Your task to perform on an android device: delete the emails in spam in the gmail app Image 0: 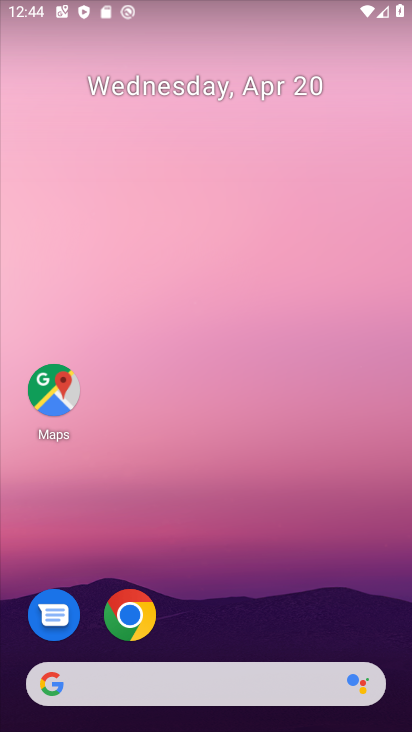
Step 0: click (411, 115)
Your task to perform on an android device: delete the emails in spam in the gmail app Image 1: 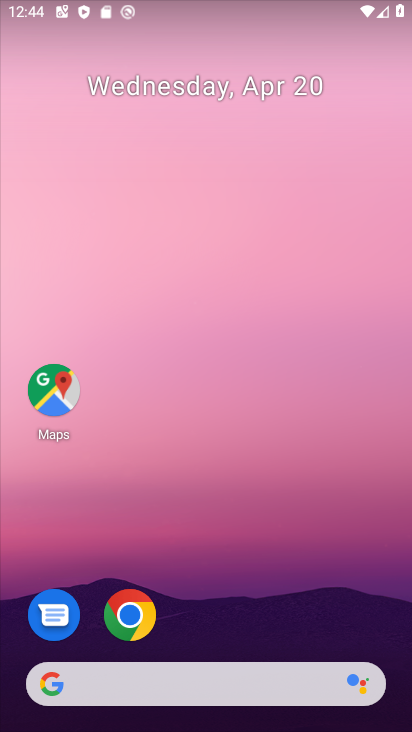
Step 1: drag from (363, 460) to (336, 58)
Your task to perform on an android device: delete the emails in spam in the gmail app Image 2: 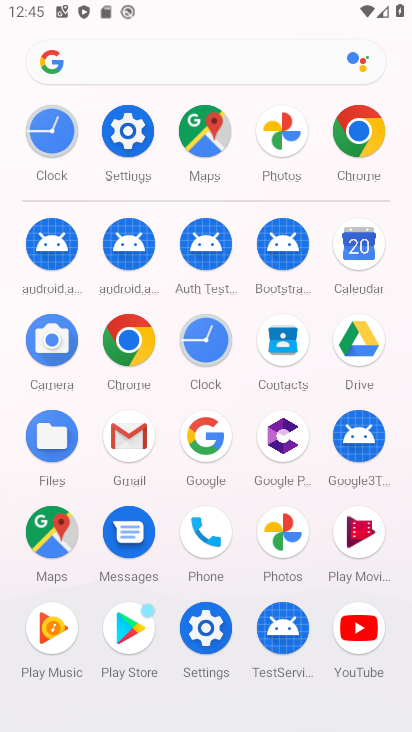
Step 2: click (138, 442)
Your task to perform on an android device: delete the emails in spam in the gmail app Image 3: 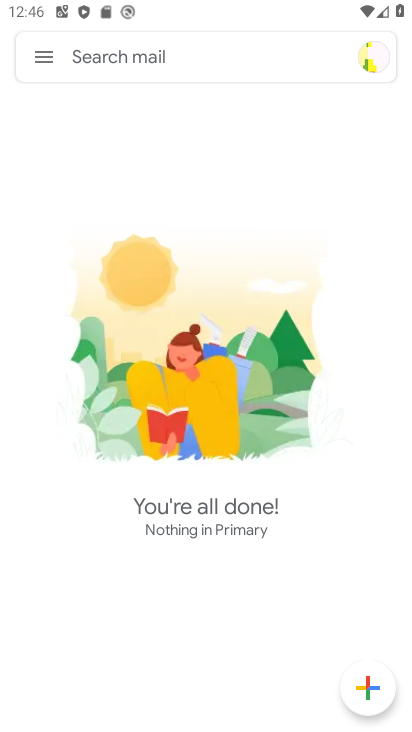
Step 3: click (33, 50)
Your task to perform on an android device: delete the emails in spam in the gmail app Image 4: 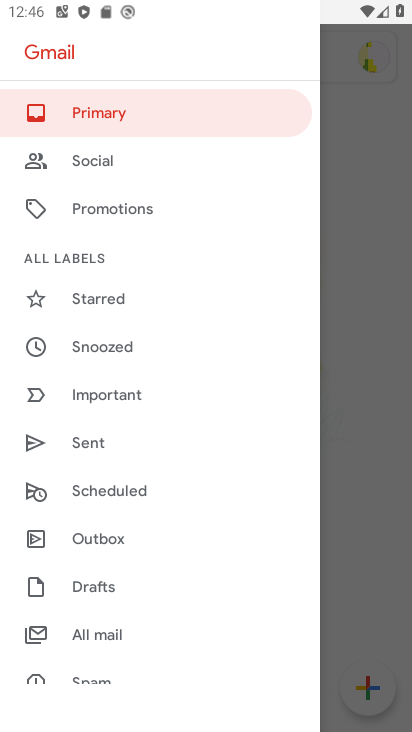
Step 4: click (115, 112)
Your task to perform on an android device: delete the emails in spam in the gmail app Image 5: 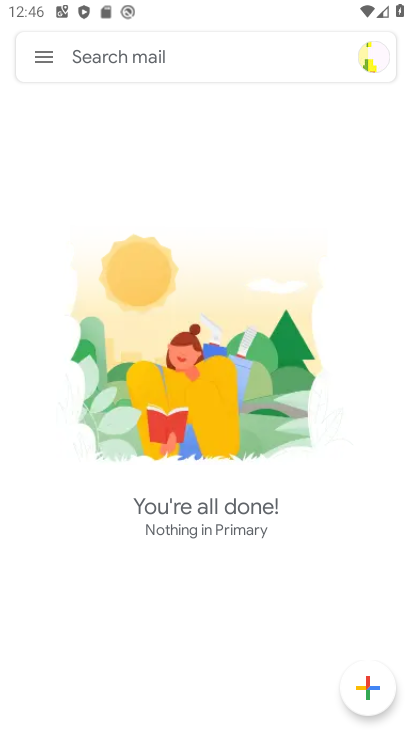
Step 5: click (36, 59)
Your task to perform on an android device: delete the emails in spam in the gmail app Image 6: 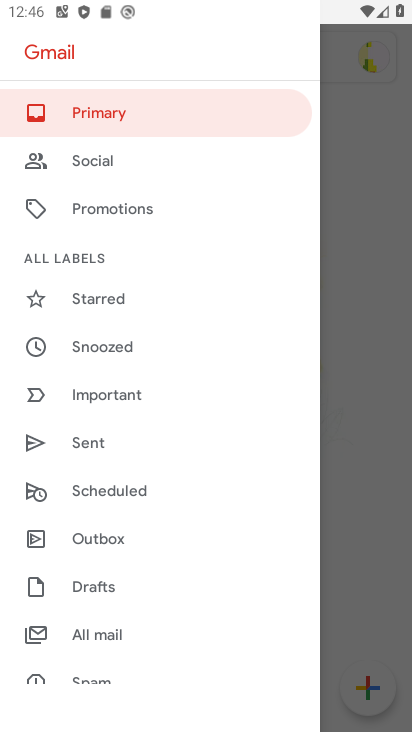
Step 6: drag from (234, 520) to (228, 240)
Your task to perform on an android device: delete the emails in spam in the gmail app Image 7: 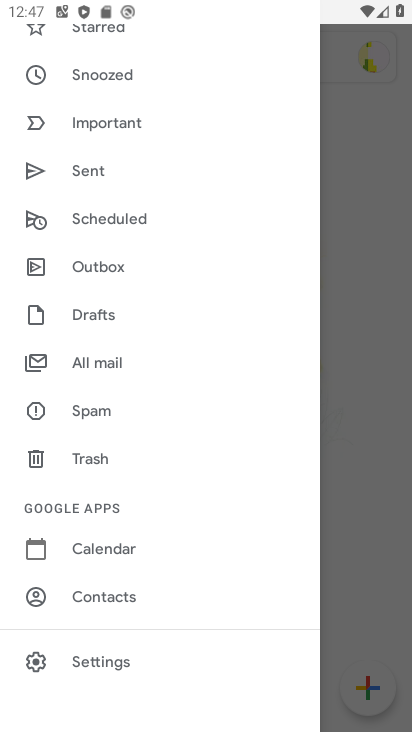
Step 7: click (70, 410)
Your task to perform on an android device: delete the emails in spam in the gmail app Image 8: 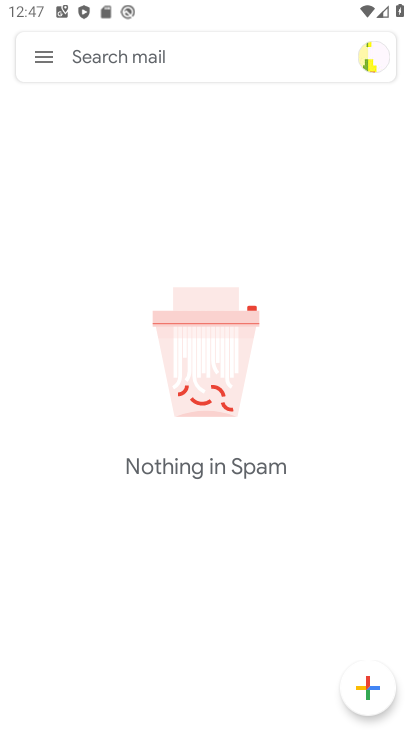
Step 8: task complete